Your task to perform on an android device: Open calendar and show me the first week of next month Image 0: 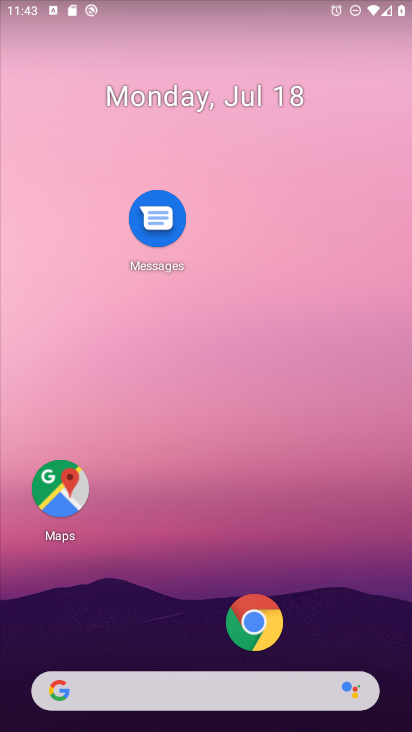
Step 0: drag from (164, 641) to (254, 157)
Your task to perform on an android device: Open calendar and show me the first week of next month Image 1: 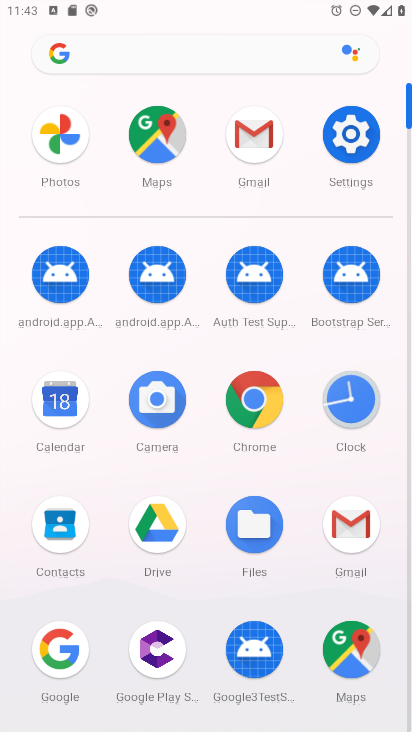
Step 1: click (65, 412)
Your task to perform on an android device: Open calendar and show me the first week of next month Image 2: 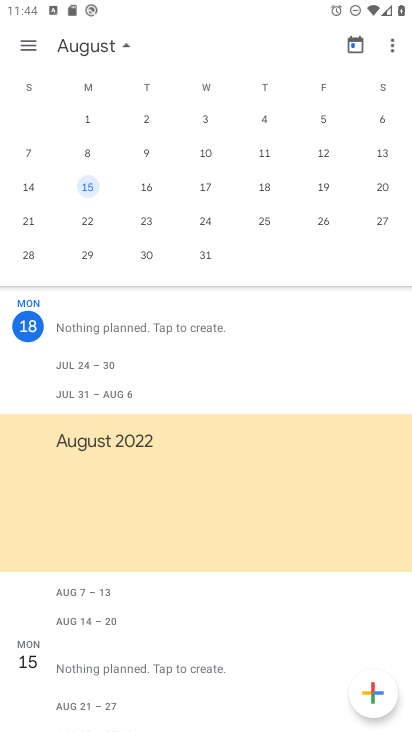
Step 2: click (92, 223)
Your task to perform on an android device: Open calendar and show me the first week of next month Image 3: 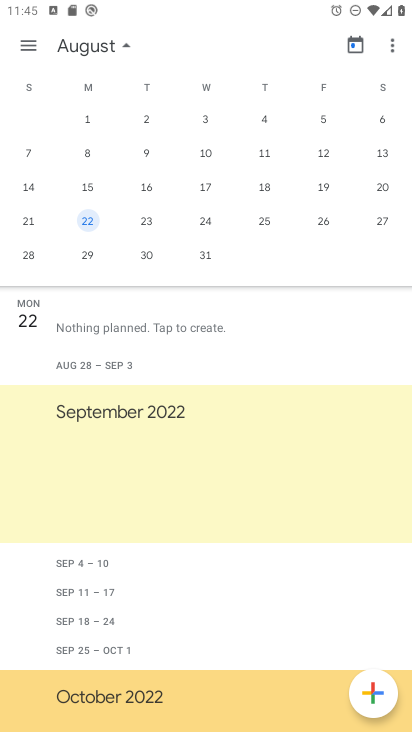
Step 3: task complete